Your task to perform on an android device: Open calendar and show me the third week of next month Image 0: 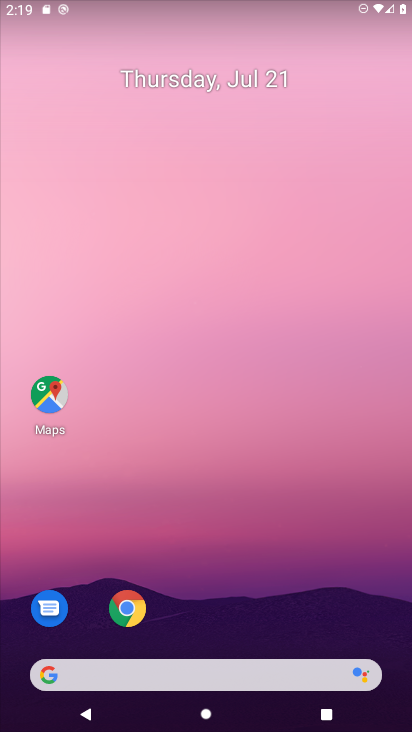
Step 0: drag from (215, 629) to (238, 188)
Your task to perform on an android device: Open calendar and show me the third week of next month Image 1: 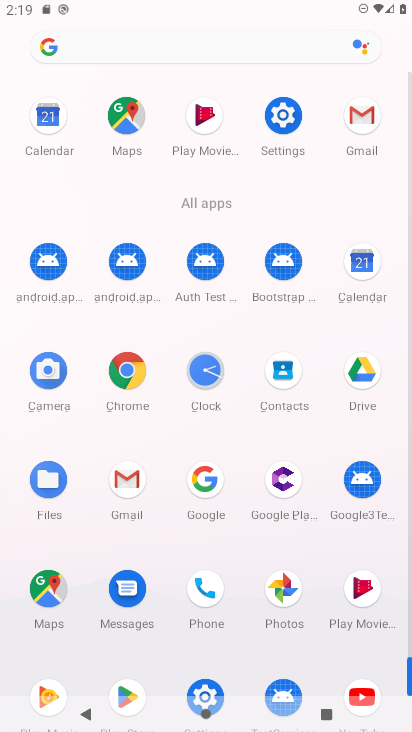
Step 1: click (357, 276)
Your task to perform on an android device: Open calendar and show me the third week of next month Image 2: 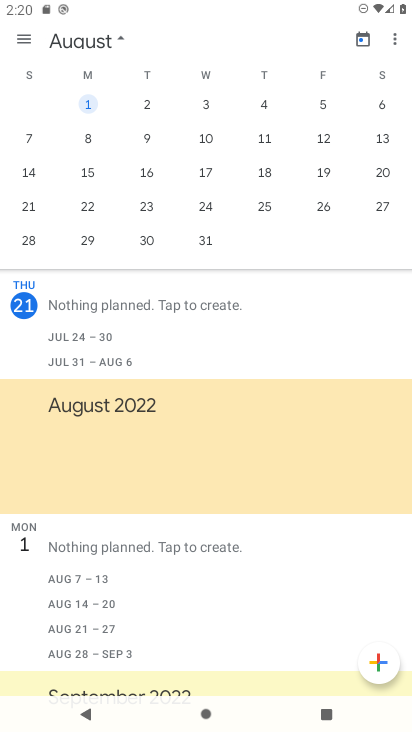
Step 2: click (29, 170)
Your task to perform on an android device: Open calendar and show me the third week of next month Image 3: 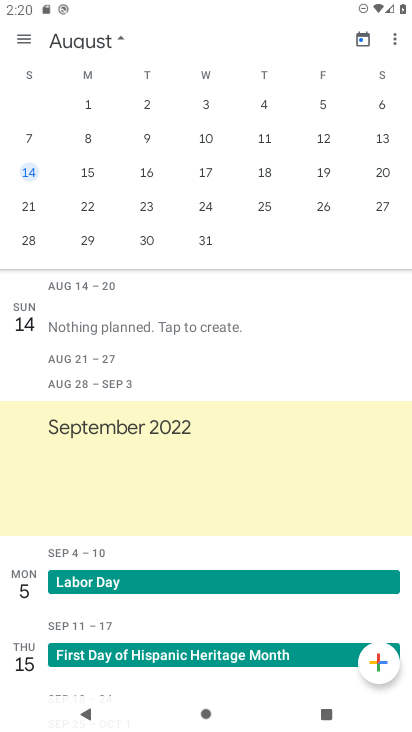
Step 3: task complete